Your task to perform on an android device: add a label to a message in the gmail app Image 0: 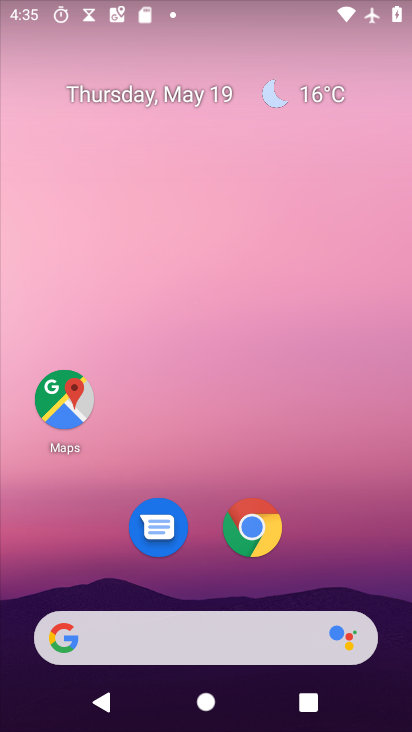
Step 0: drag from (360, 536) to (193, 106)
Your task to perform on an android device: add a label to a message in the gmail app Image 1: 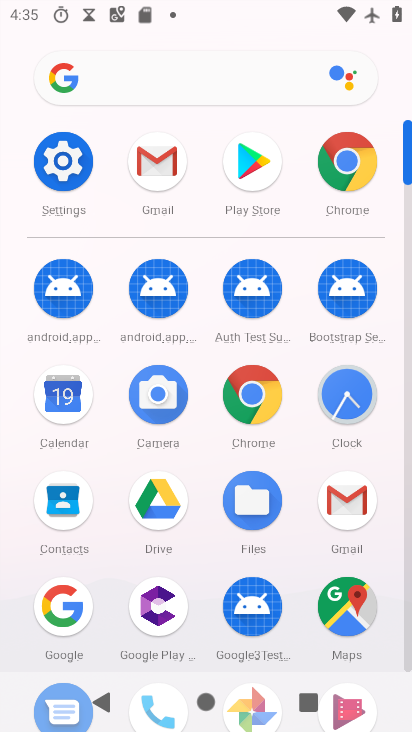
Step 1: click (165, 169)
Your task to perform on an android device: add a label to a message in the gmail app Image 2: 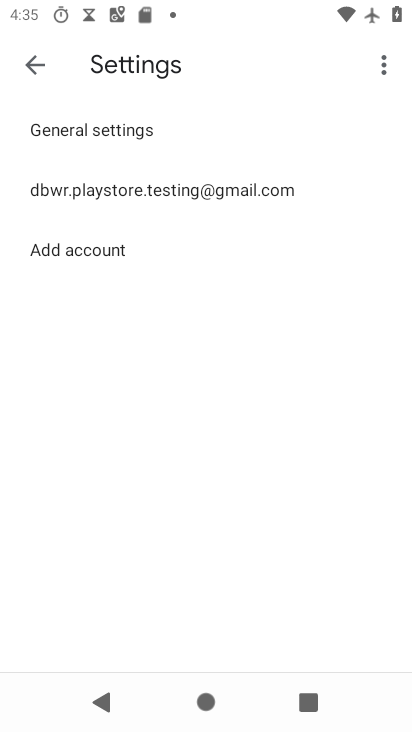
Step 2: click (41, 54)
Your task to perform on an android device: add a label to a message in the gmail app Image 3: 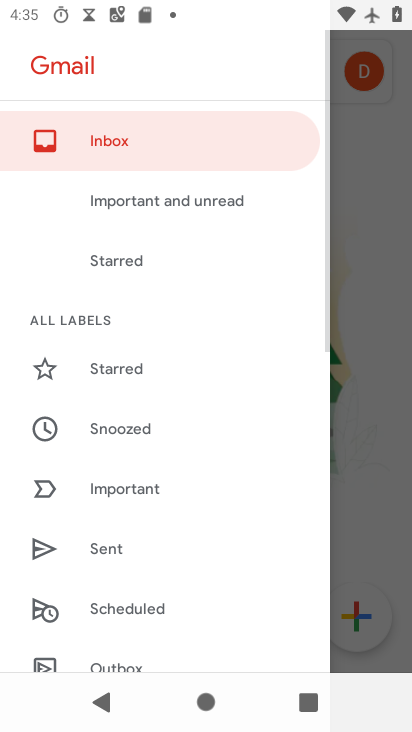
Step 3: drag from (183, 556) to (187, 229)
Your task to perform on an android device: add a label to a message in the gmail app Image 4: 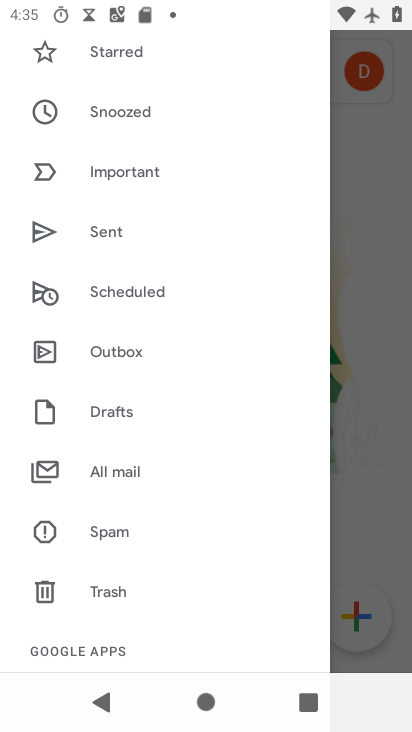
Step 4: click (377, 445)
Your task to perform on an android device: add a label to a message in the gmail app Image 5: 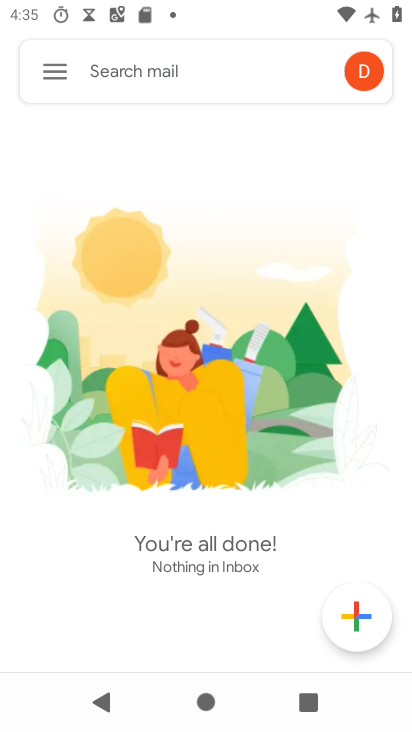
Step 5: task complete